Your task to perform on an android device: install app "Yahoo Mail" Image 0: 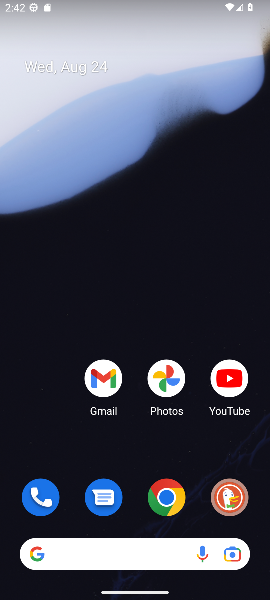
Step 0: drag from (128, 554) to (159, 173)
Your task to perform on an android device: install app "Yahoo Mail" Image 1: 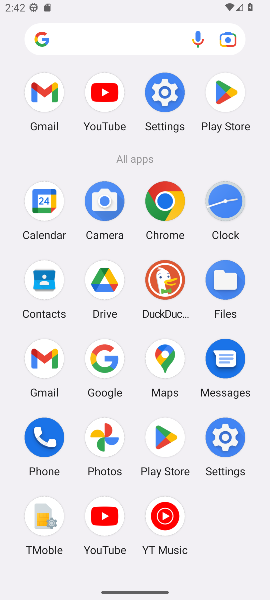
Step 1: click (225, 92)
Your task to perform on an android device: install app "Yahoo Mail" Image 2: 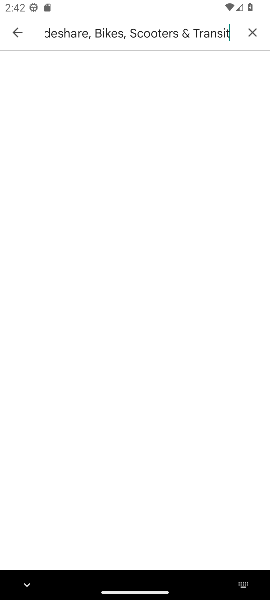
Step 2: press back button
Your task to perform on an android device: install app "Yahoo Mail" Image 3: 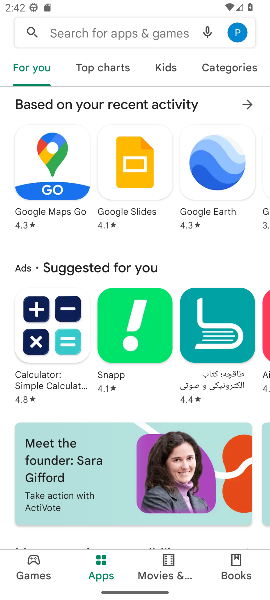
Step 3: click (152, 41)
Your task to perform on an android device: install app "Yahoo Mail" Image 4: 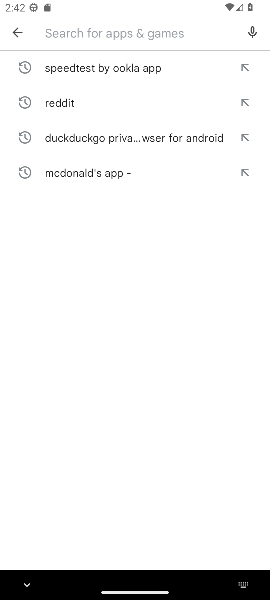
Step 4: type "Yahoo Mail"
Your task to perform on an android device: install app "Yahoo Mail" Image 5: 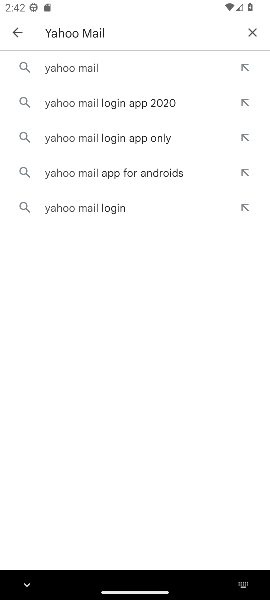
Step 5: click (61, 68)
Your task to perform on an android device: install app "Yahoo Mail" Image 6: 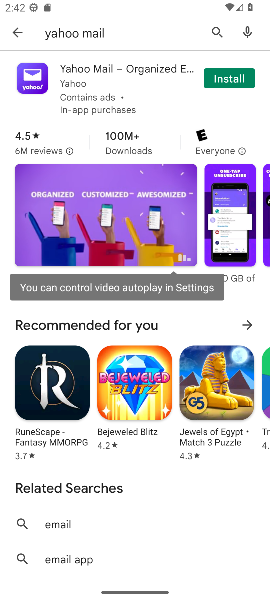
Step 6: click (228, 81)
Your task to perform on an android device: install app "Yahoo Mail" Image 7: 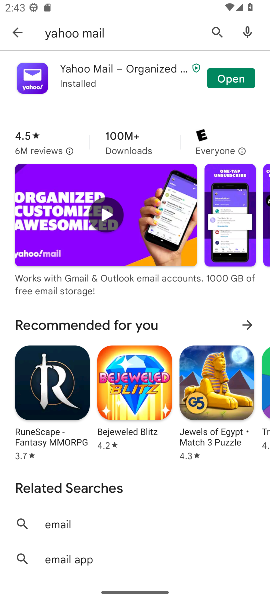
Step 7: task complete